Your task to perform on an android device: How far is the moon? Image 0: 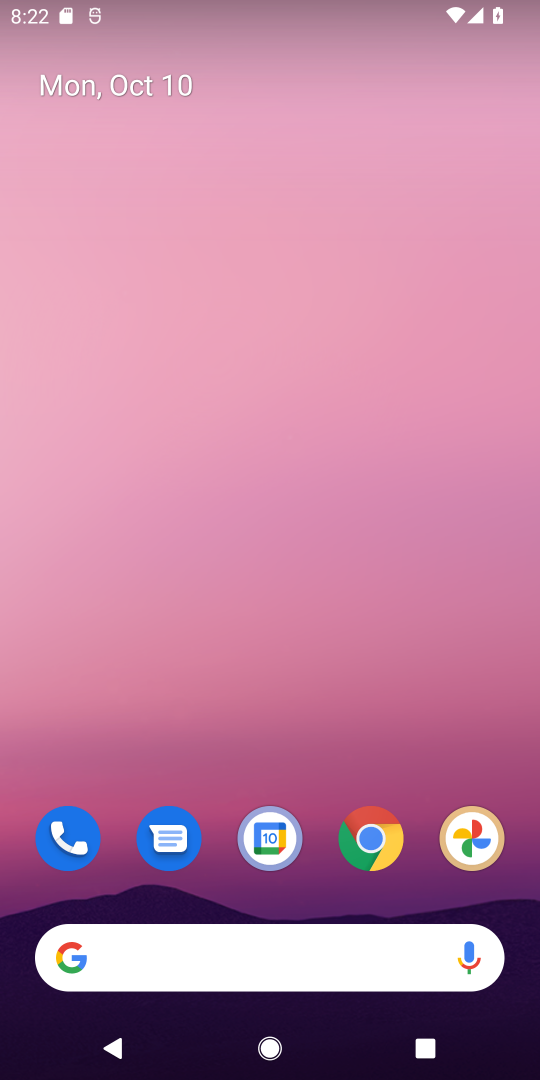
Step 0: click (372, 841)
Your task to perform on an android device: How far is the moon? Image 1: 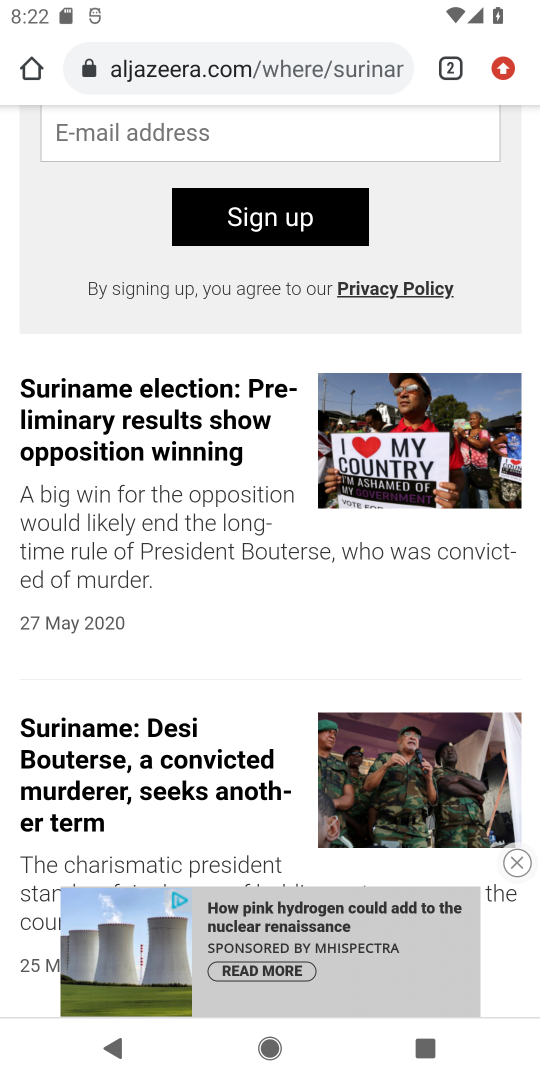
Step 1: click (160, 51)
Your task to perform on an android device: How far is the moon? Image 2: 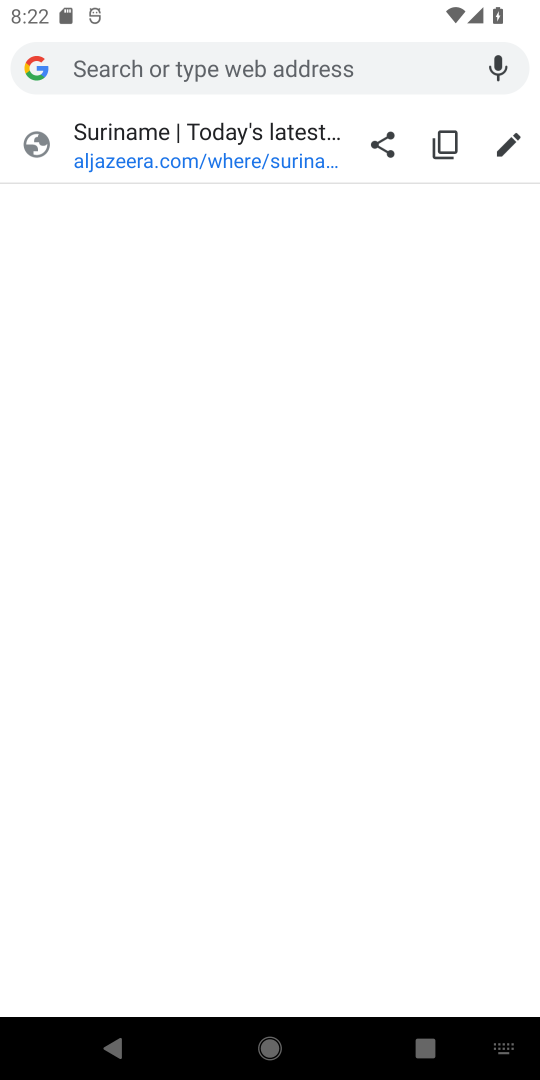
Step 2: type "How far is the moon?"
Your task to perform on an android device: How far is the moon? Image 3: 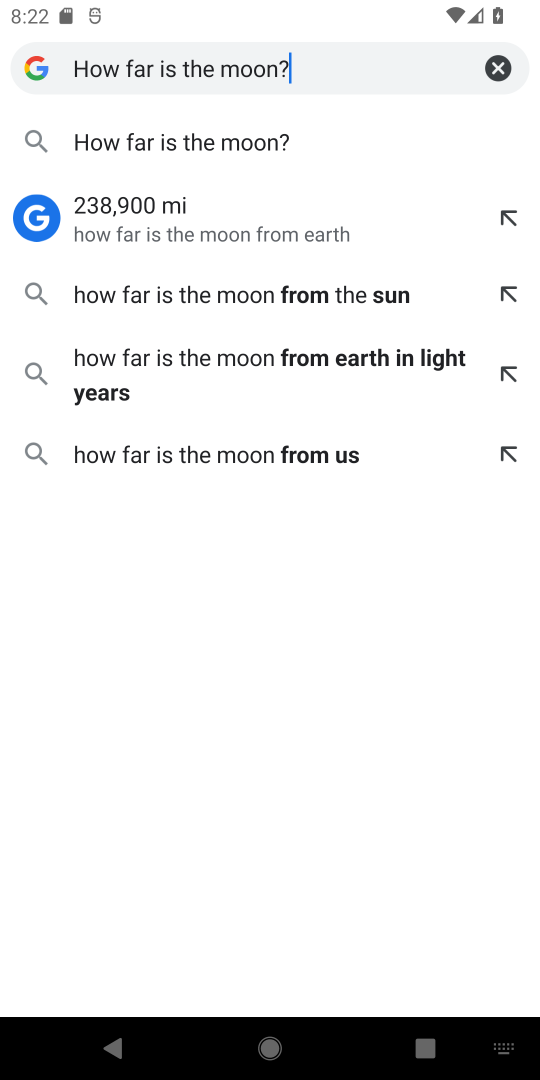
Step 3: click (259, 133)
Your task to perform on an android device: How far is the moon? Image 4: 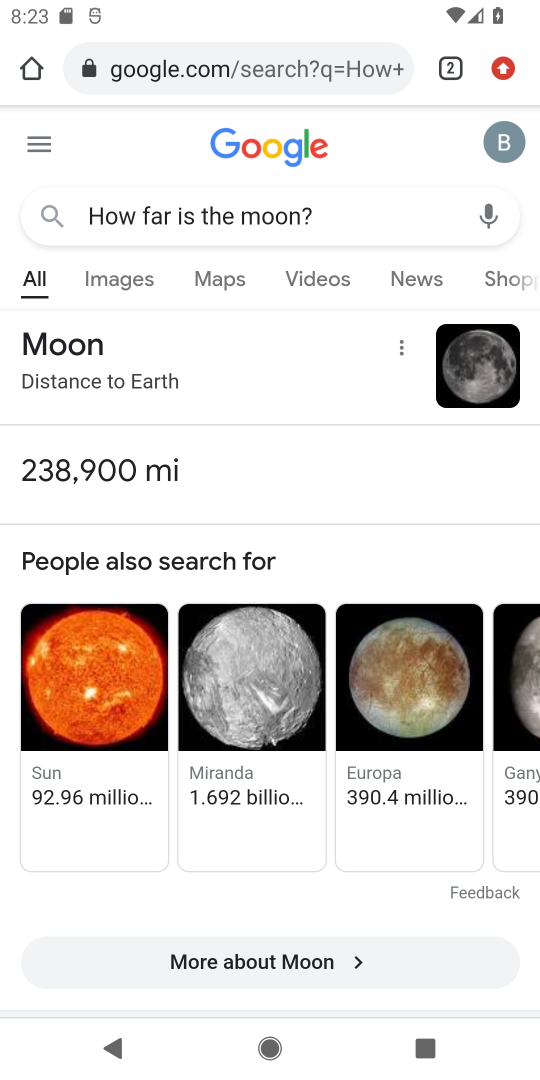
Step 4: task complete